Your task to perform on an android device: turn off location Image 0: 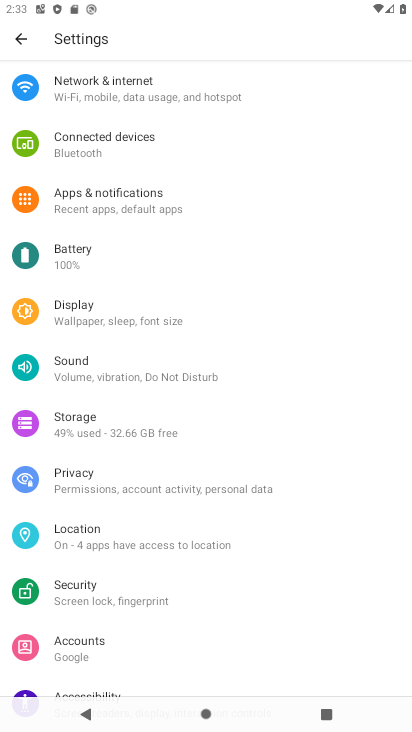
Step 0: click (279, 546)
Your task to perform on an android device: turn off location Image 1: 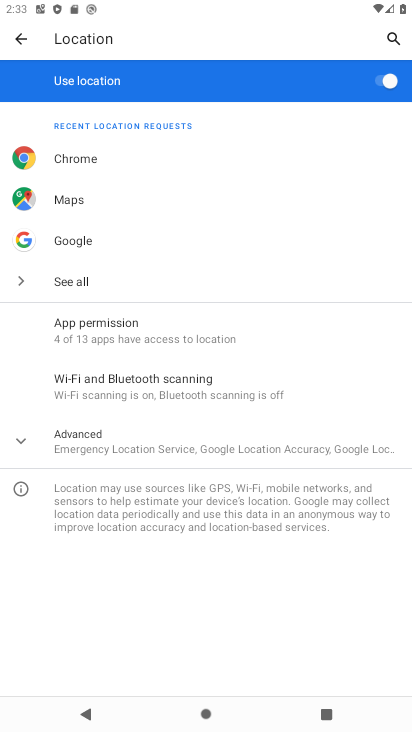
Step 1: click (379, 95)
Your task to perform on an android device: turn off location Image 2: 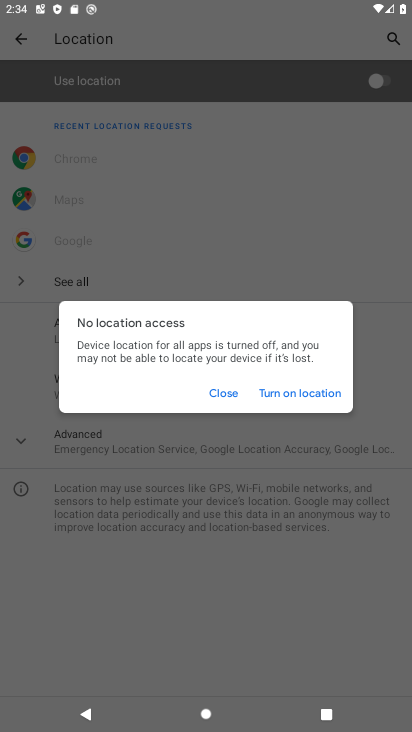
Step 2: press home button
Your task to perform on an android device: turn off location Image 3: 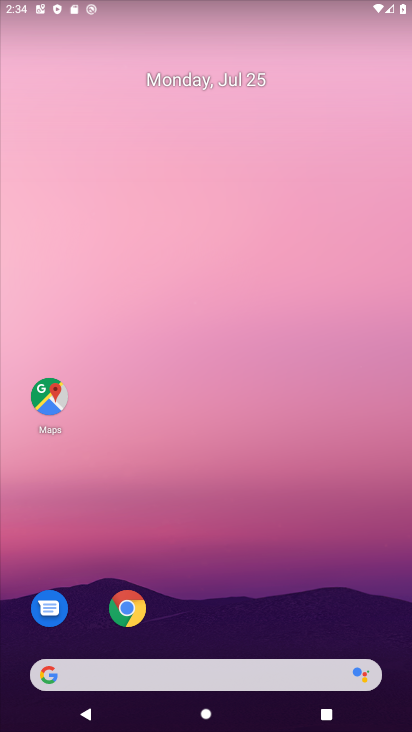
Step 3: drag from (358, 617) to (301, 143)
Your task to perform on an android device: turn off location Image 4: 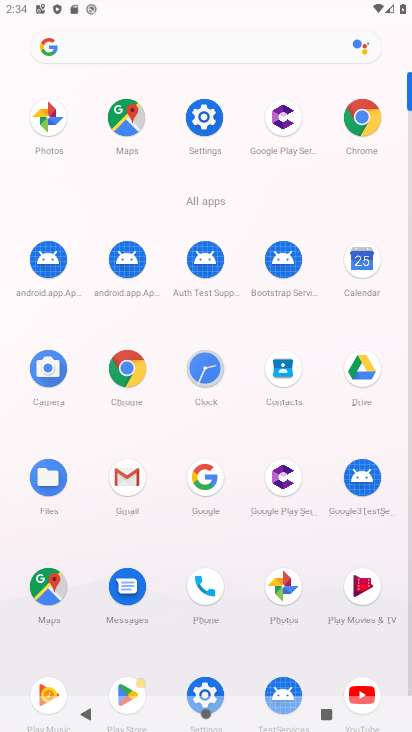
Step 4: click (209, 122)
Your task to perform on an android device: turn off location Image 5: 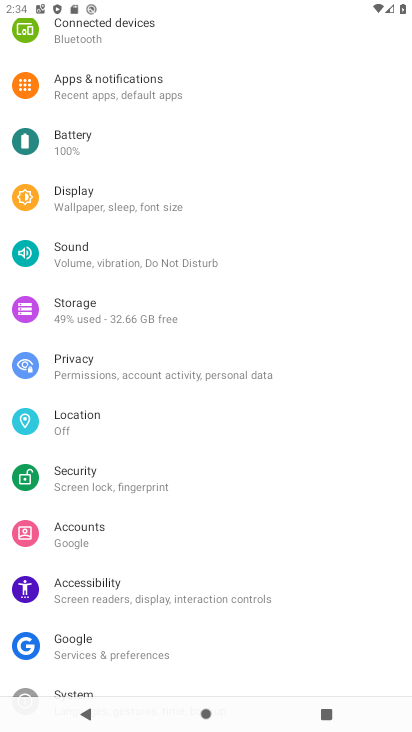
Step 5: click (172, 420)
Your task to perform on an android device: turn off location Image 6: 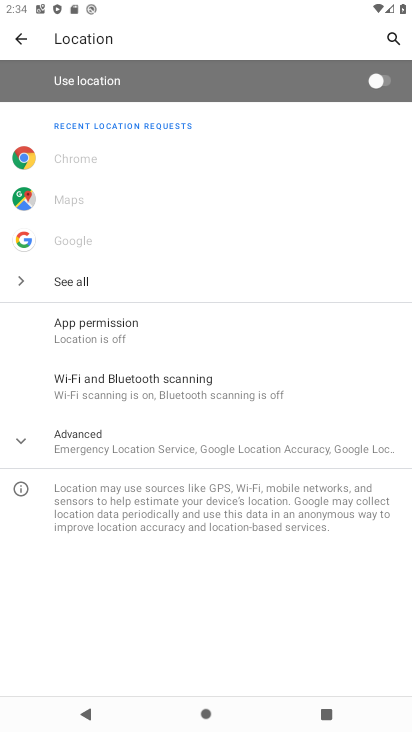
Step 6: task complete